Your task to perform on an android device: Go to Maps Image 0: 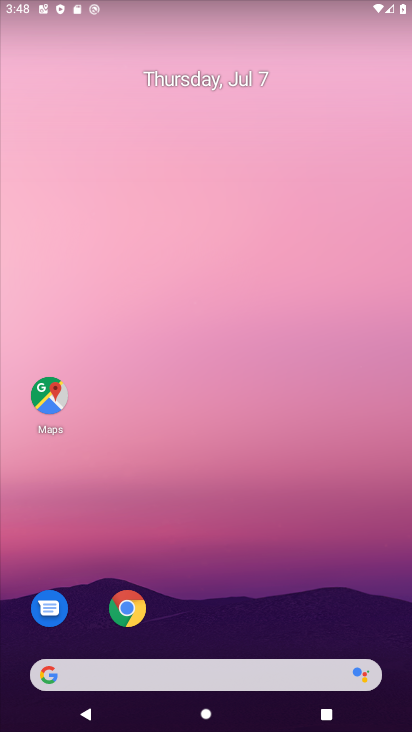
Step 0: click (44, 386)
Your task to perform on an android device: Go to Maps Image 1: 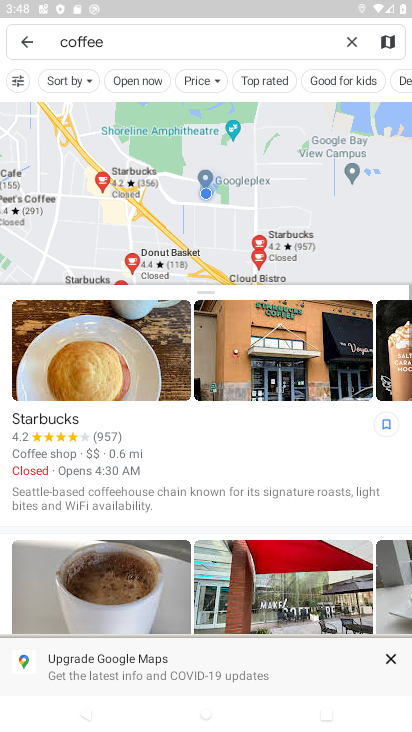
Step 1: task complete